Your task to perform on an android device: empty trash in the gmail app Image 0: 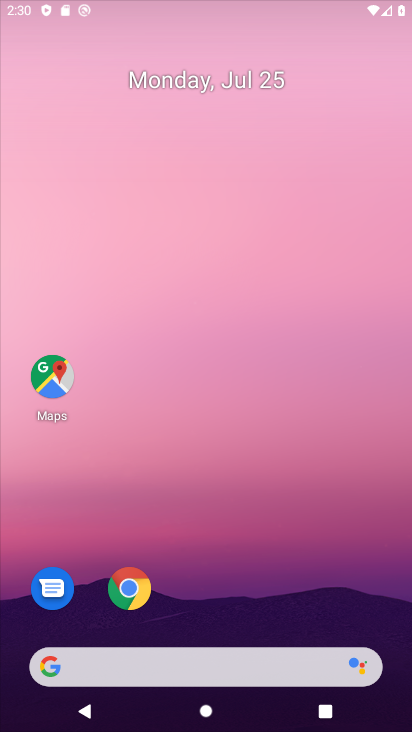
Step 0: drag from (225, 711) to (220, 283)
Your task to perform on an android device: empty trash in the gmail app Image 1: 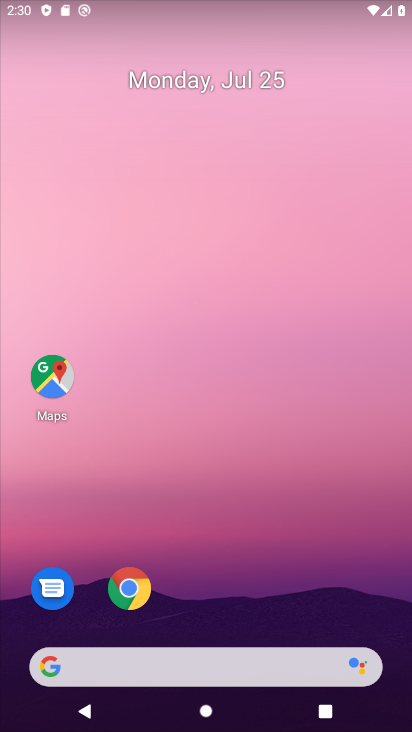
Step 1: drag from (227, 724) to (253, 368)
Your task to perform on an android device: empty trash in the gmail app Image 2: 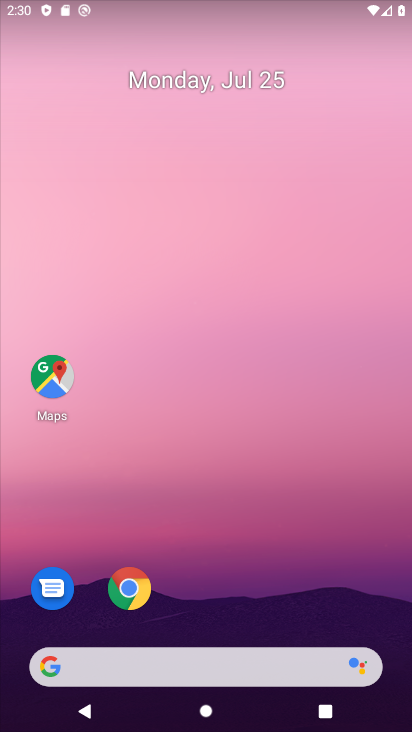
Step 2: drag from (234, 593) to (252, 61)
Your task to perform on an android device: empty trash in the gmail app Image 3: 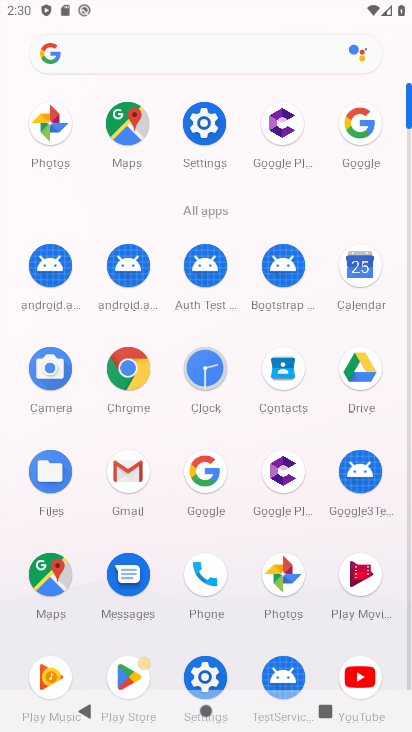
Step 3: click (126, 481)
Your task to perform on an android device: empty trash in the gmail app Image 4: 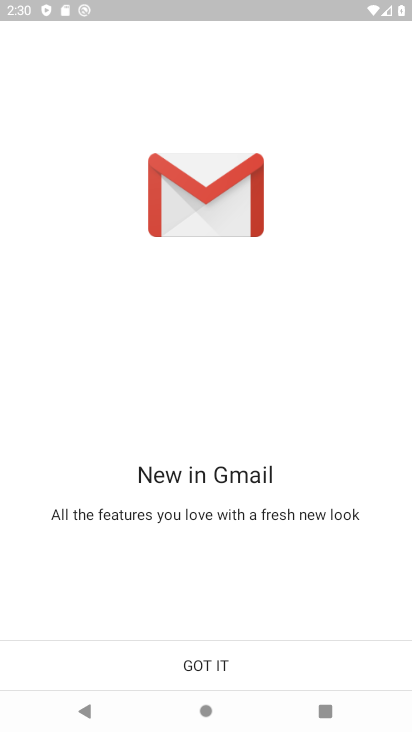
Step 4: click (201, 659)
Your task to perform on an android device: empty trash in the gmail app Image 5: 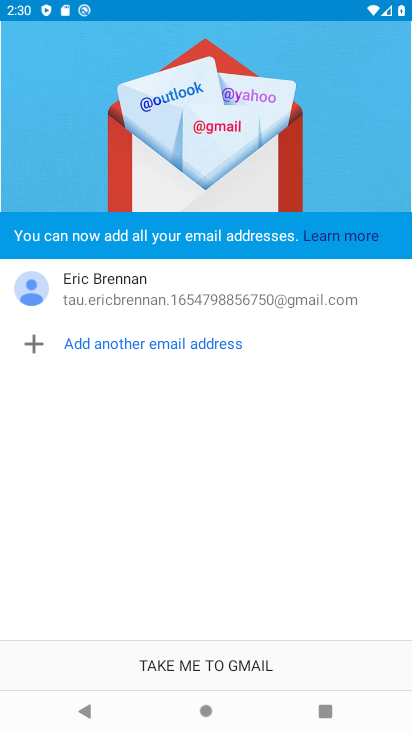
Step 5: click (242, 663)
Your task to perform on an android device: empty trash in the gmail app Image 6: 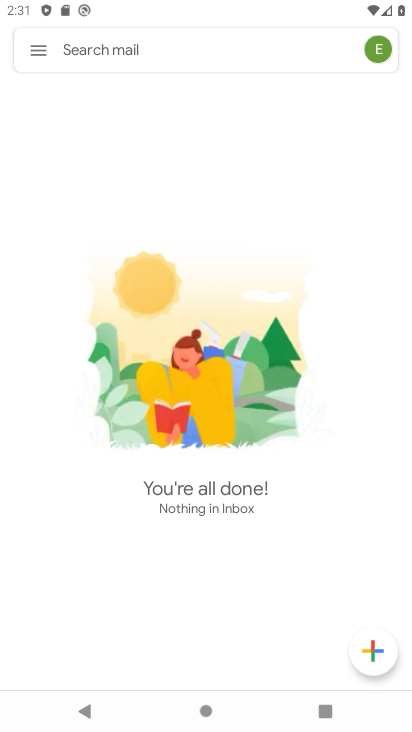
Step 6: click (39, 48)
Your task to perform on an android device: empty trash in the gmail app Image 7: 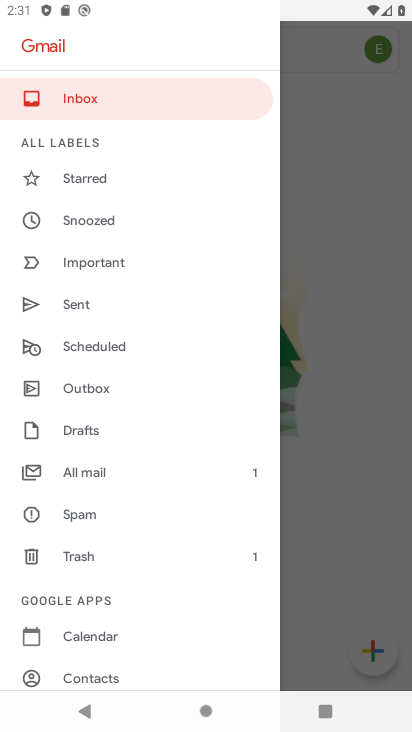
Step 7: click (76, 553)
Your task to perform on an android device: empty trash in the gmail app Image 8: 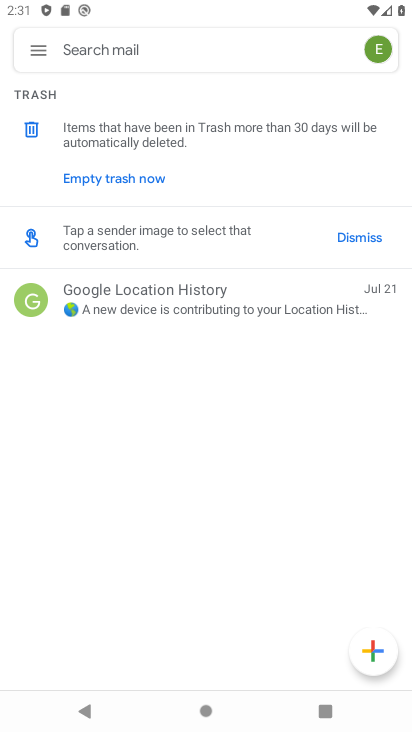
Step 8: click (120, 179)
Your task to perform on an android device: empty trash in the gmail app Image 9: 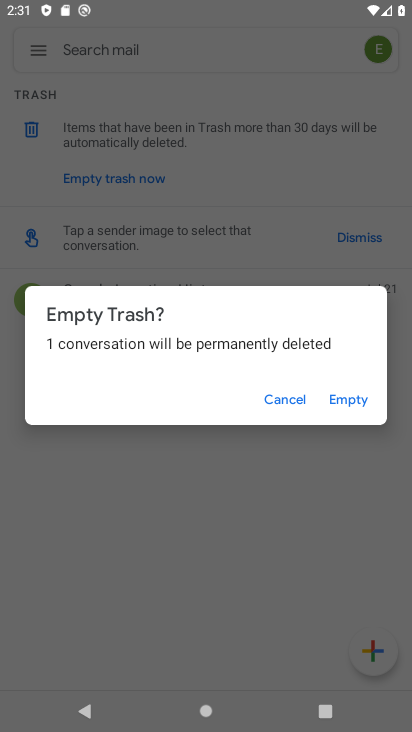
Step 9: click (349, 397)
Your task to perform on an android device: empty trash in the gmail app Image 10: 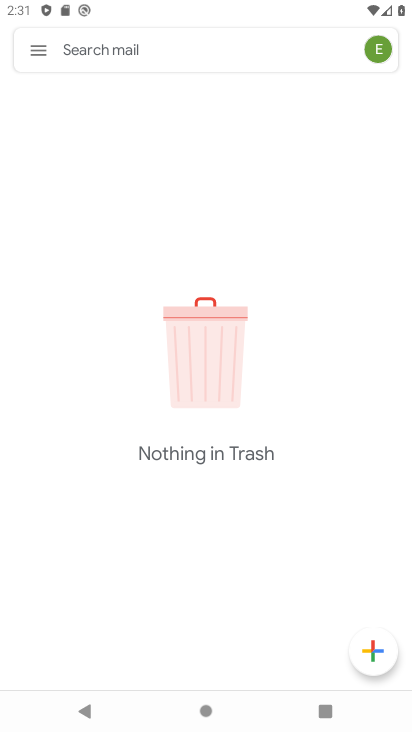
Step 10: task complete